Your task to perform on an android device: see tabs open on other devices in the chrome app Image 0: 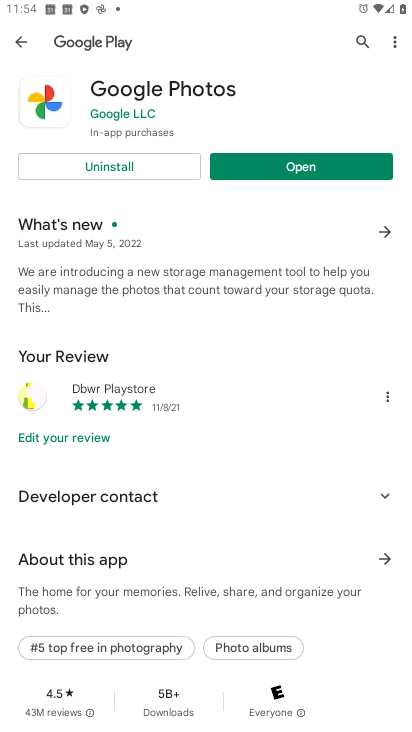
Step 0: drag from (224, 272) to (382, 547)
Your task to perform on an android device: see tabs open on other devices in the chrome app Image 1: 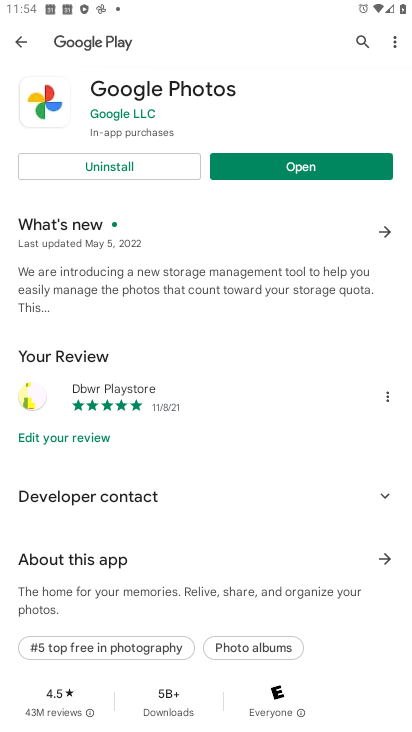
Step 1: press home button
Your task to perform on an android device: see tabs open on other devices in the chrome app Image 2: 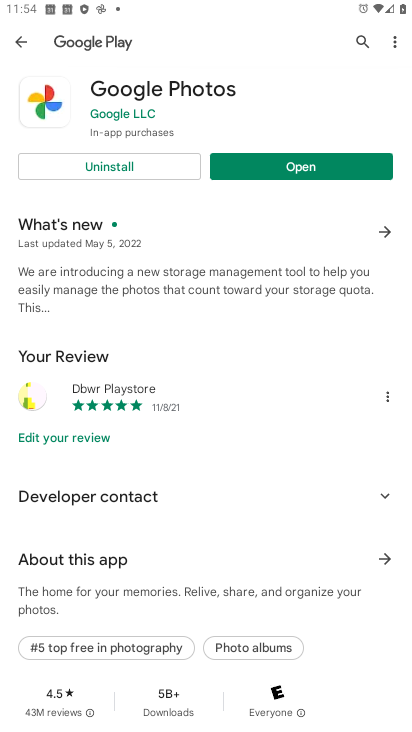
Step 2: click (408, 426)
Your task to perform on an android device: see tabs open on other devices in the chrome app Image 3: 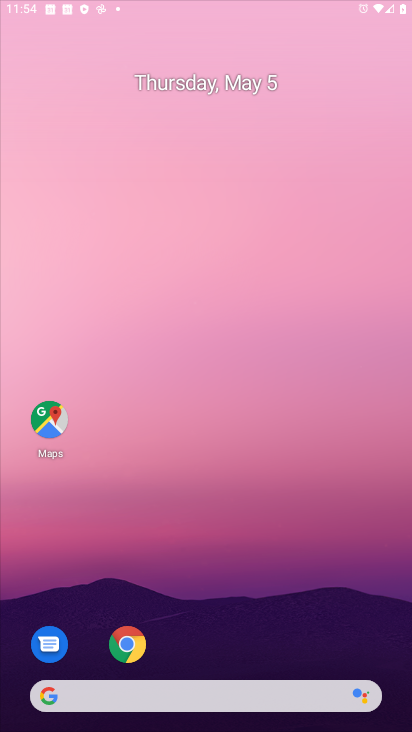
Step 3: drag from (243, 624) to (306, 297)
Your task to perform on an android device: see tabs open on other devices in the chrome app Image 4: 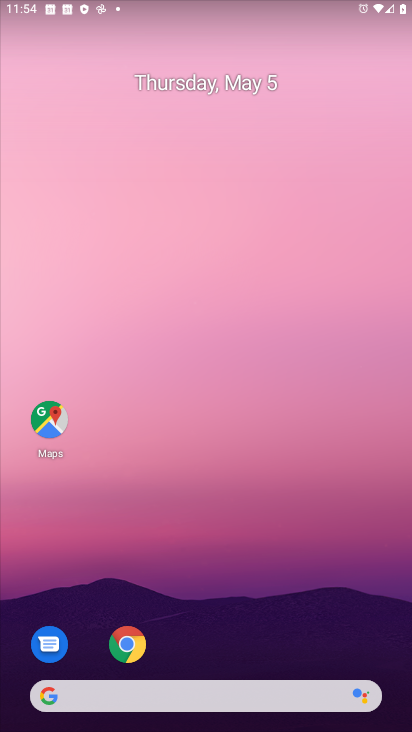
Step 4: click (136, 640)
Your task to perform on an android device: see tabs open on other devices in the chrome app Image 5: 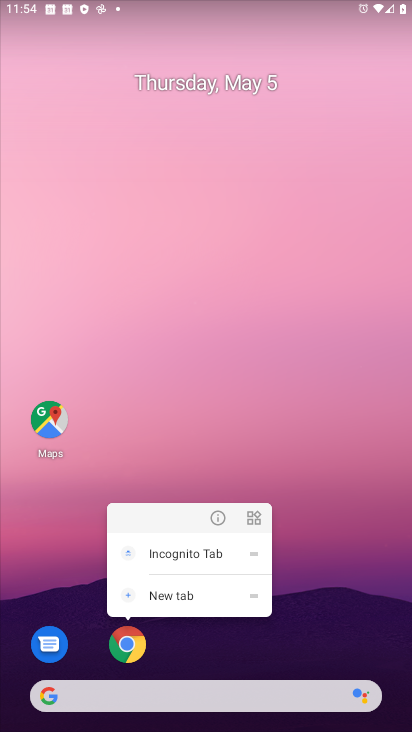
Step 5: click (215, 519)
Your task to perform on an android device: see tabs open on other devices in the chrome app Image 6: 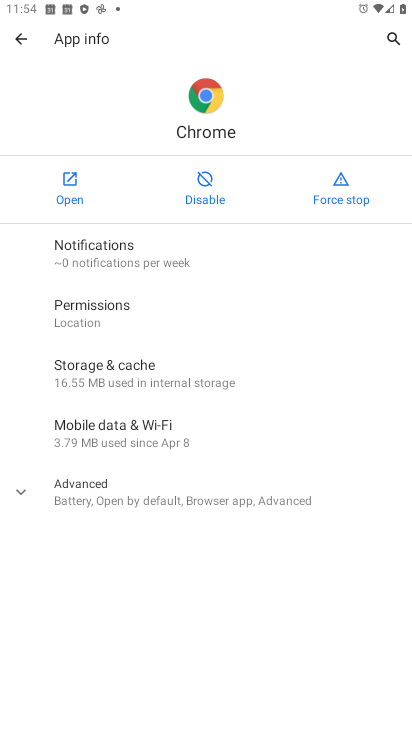
Step 6: click (63, 187)
Your task to perform on an android device: see tabs open on other devices in the chrome app Image 7: 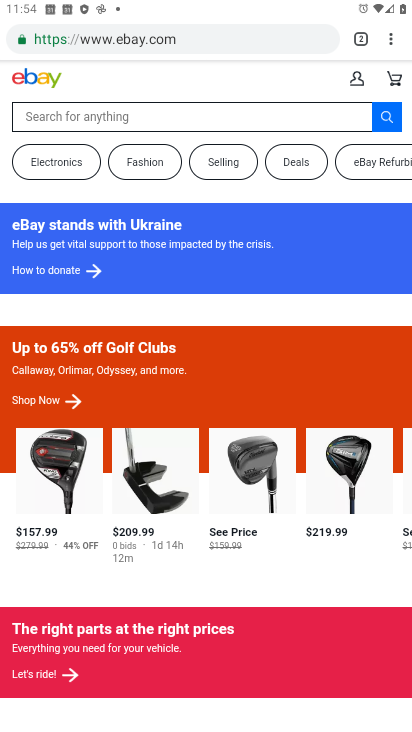
Step 7: task complete